Your task to perform on an android device: remove spam from my inbox in the gmail app Image 0: 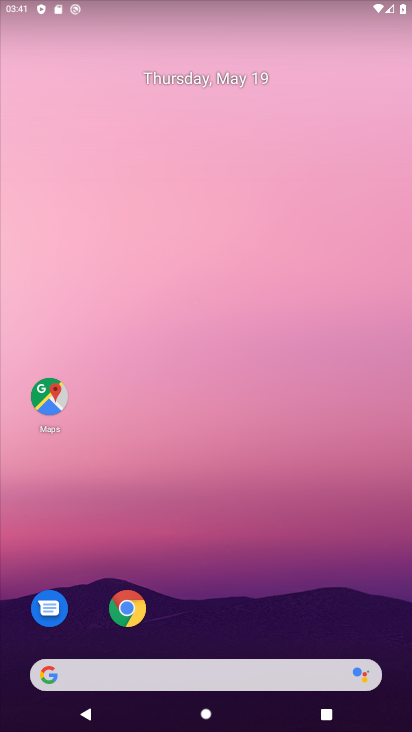
Step 0: drag from (248, 617) to (206, 20)
Your task to perform on an android device: remove spam from my inbox in the gmail app Image 1: 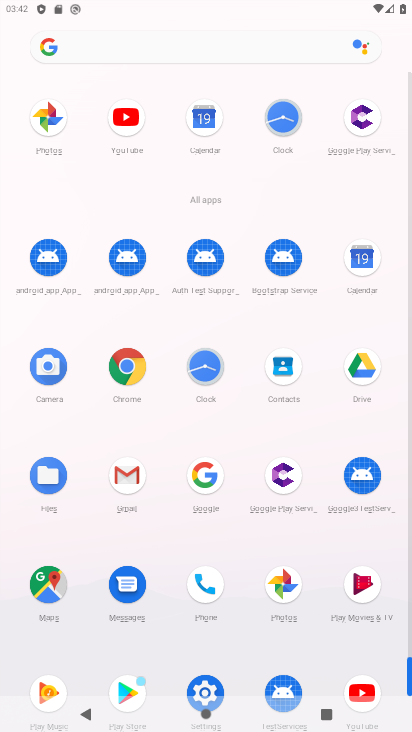
Step 1: click (126, 473)
Your task to perform on an android device: remove spam from my inbox in the gmail app Image 2: 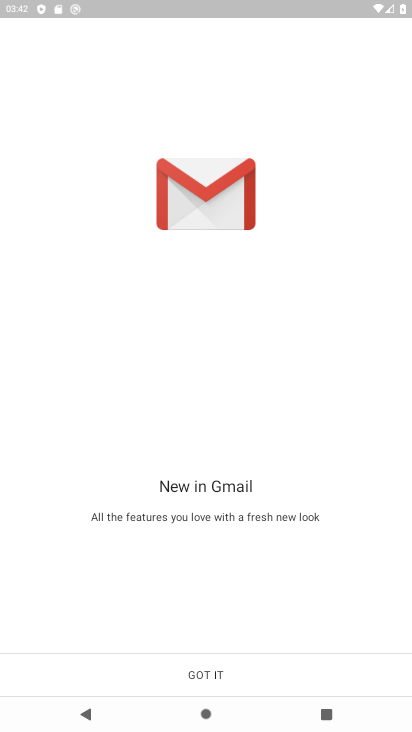
Step 2: click (208, 671)
Your task to perform on an android device: remove spam from my inbox in the gmail app Image 3: 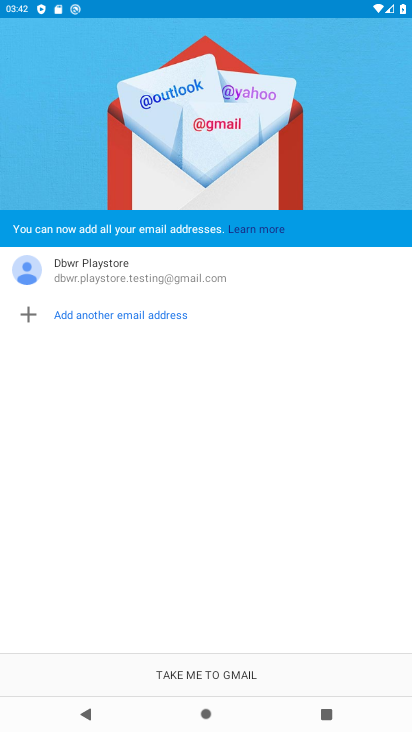
Step 3: click (208, 671)
Your task to perform on an android device: remove spam from my inbox in the gmail app Image 4: 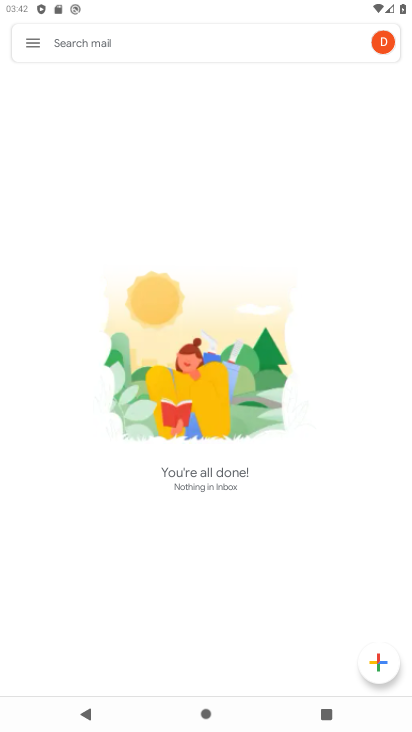
Step 4: click (32, 42)
Your task to perform on an android device: remove spam from my inbox in the gmail app Image 5: 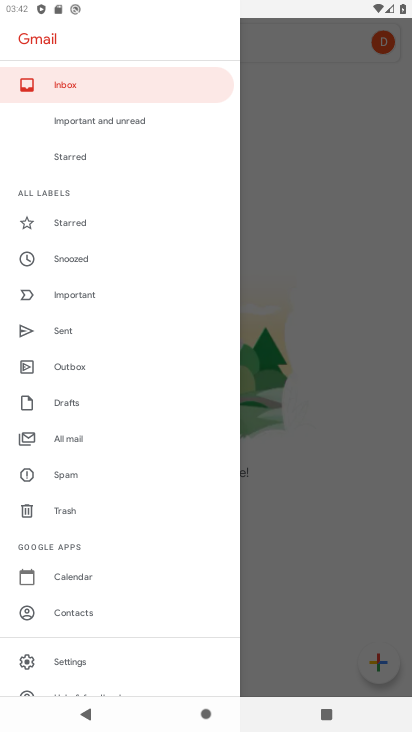
Step 5: click (71, 473)
Your task to perform on an android device: remove spam from my inbox in the gmail app Image 6: 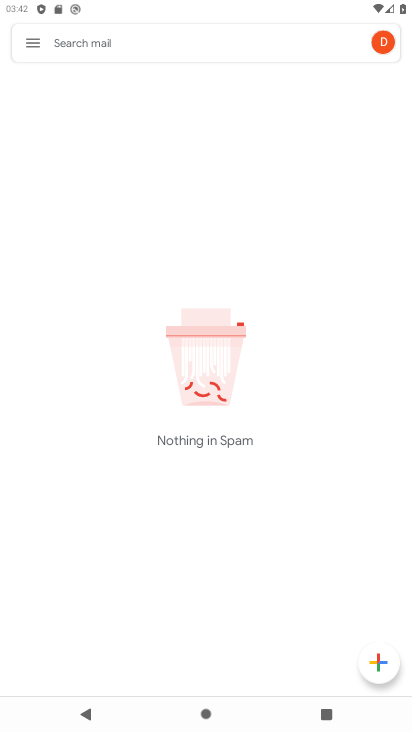
Step 6: task complete